Your task to perform on an android device: refresh tabs in the chrome app Image 0: 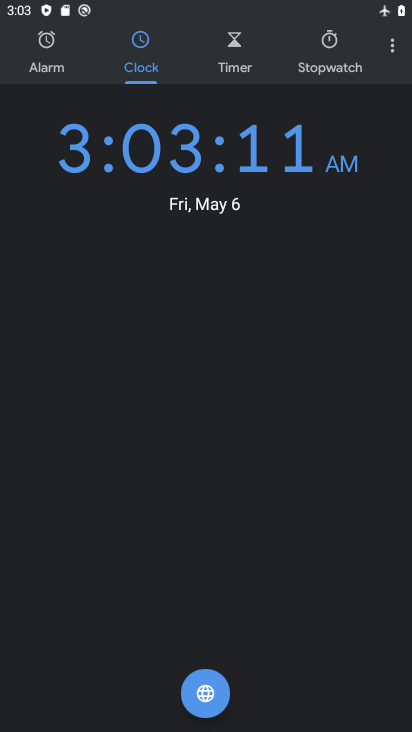
Step 0: press home button
Your task to perform on an android device: refresh tabs in the chrome app Image 1: 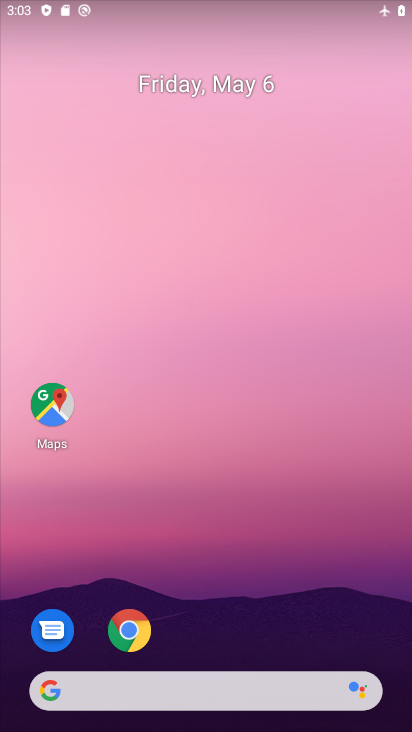
Step 1: click (141, 639)
Your task to perform on an android device: refresh tabs in the chrome app Image 2: 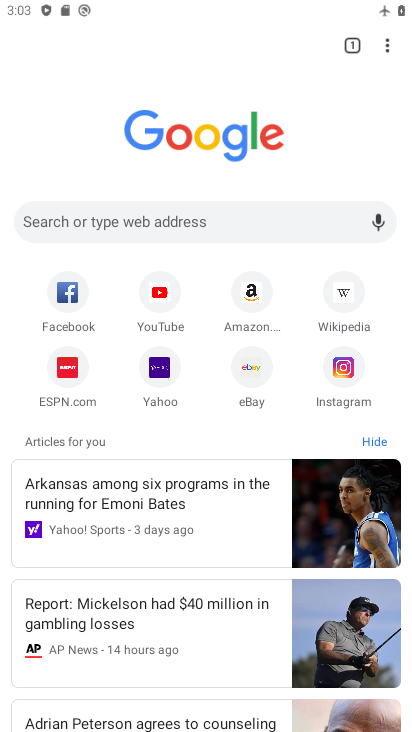
Step 2: click (388, 43)
Your task to perform on an android device: refresh tabs in the chrome app Image 3: 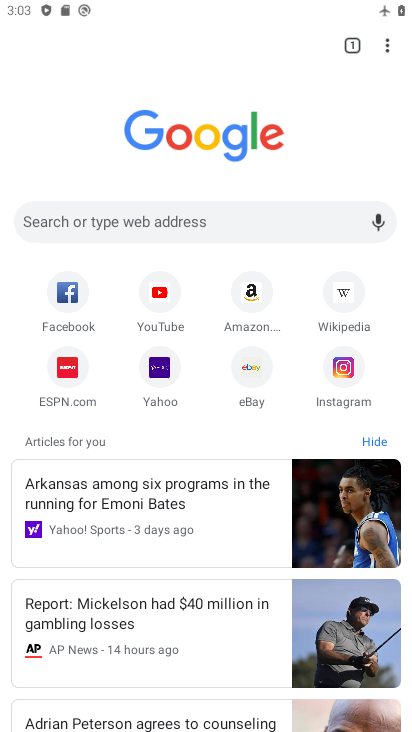
Step 3: click (389, 43)
Your task to perform on an android device: refresh tabs in the chrome app Image 4: 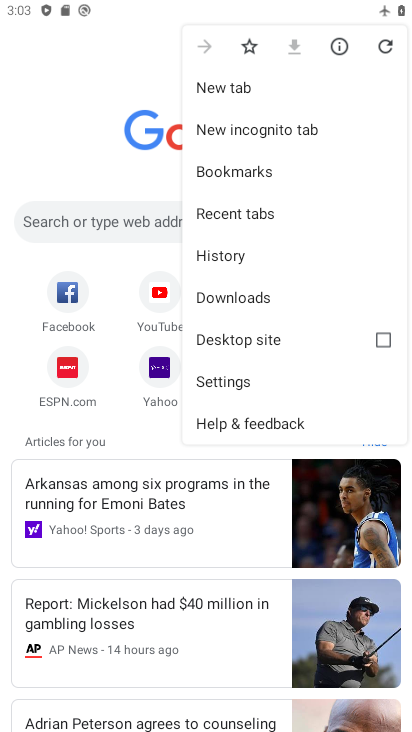
Step 4: click (274, 202)
Your task to perform on an android device: refresh tabs in the chrome app Image 5: 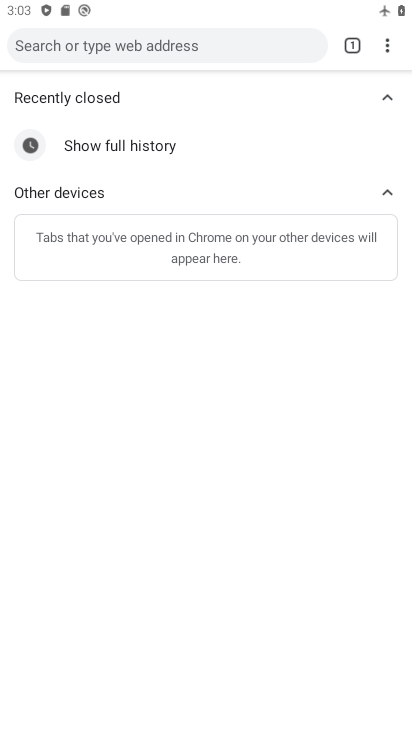
Step 5: task complete